Your task to perform on an android device: choose inbox layout in the gmail app Image 0: 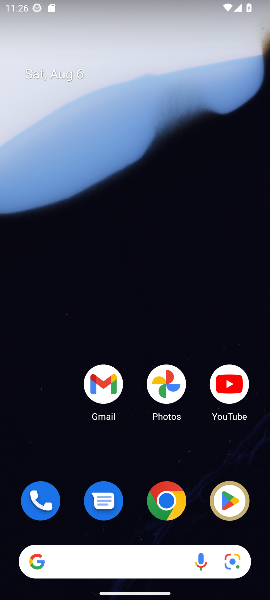
Step 0: click (102, 382)
Your task to perform on an android device: choose inbox layout in the gmail app Image 1: 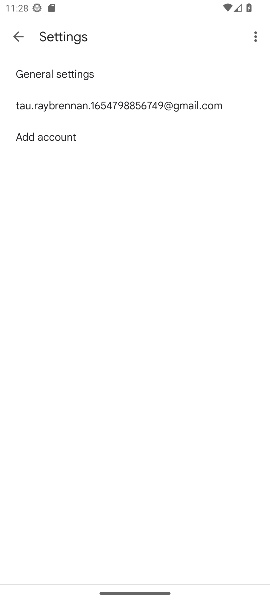
Step 1: click (73, 107)
Your task to perform on an android device: choose inbox layout in the gmail app Image 2: 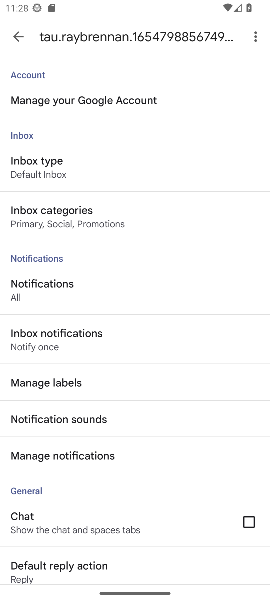
Step 2: click (45, 170)
Your task to perform on an android device: choose inbox layout in the gmail app Image 3: 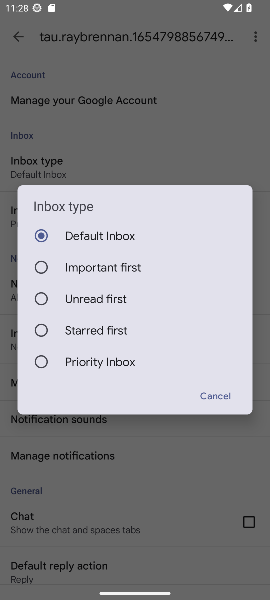
Step 3: click (36, 366)
Your task to perform on an android device: choose inbox layout in the gmail app Image 4: 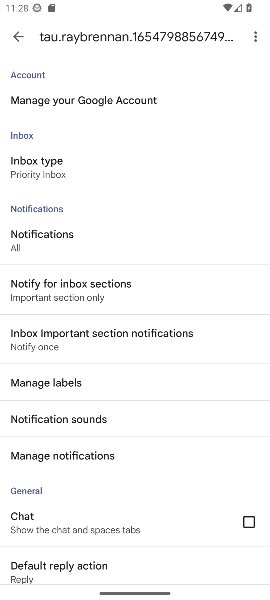
Step 4: task complete